Your task to perform on an android device: Open Google Chrome and click the shortcut for Amazon.com Image 0: 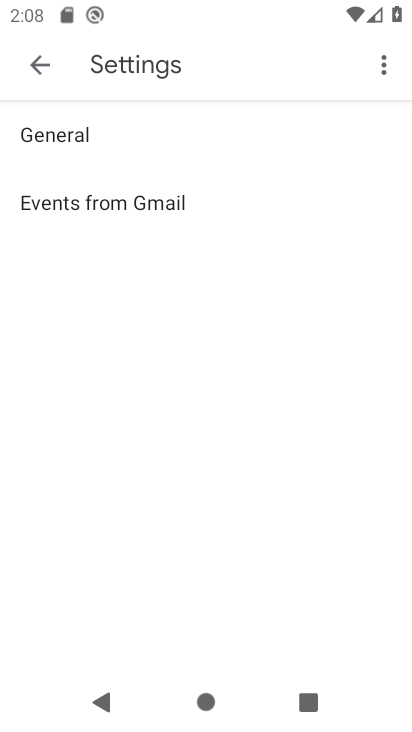
Step 0: press home button
Your task to perform on an android device: Open Google Chrome and click the shortcut for Amazon.com Image 1: 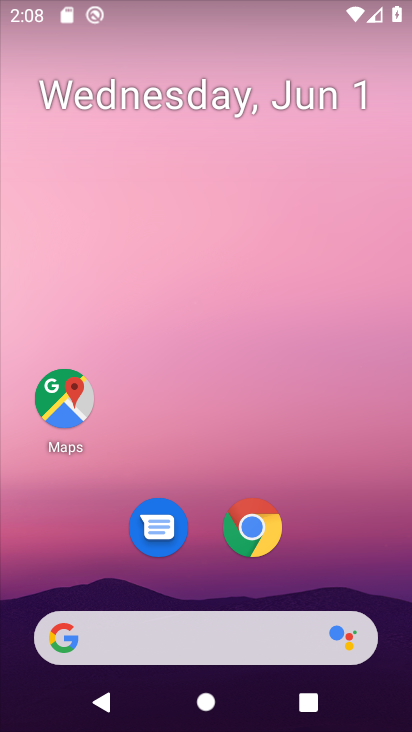
Step 1: click (246, 533)
Your task to perform on an android device: Open Google Chrome and click the shortcut for Amazon.com Image 2: 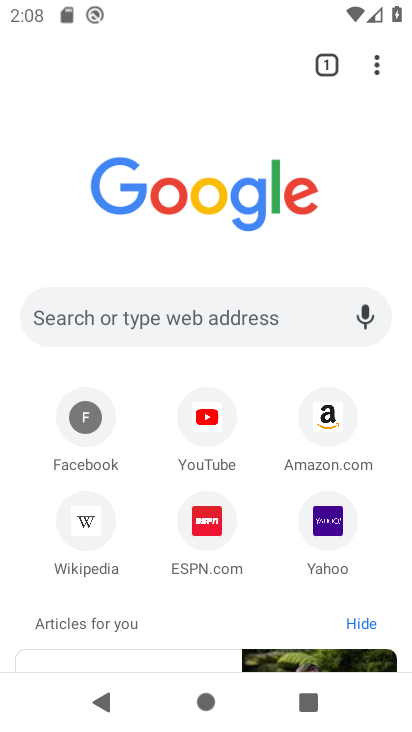
Step 2: click (316, 445)
Your task to perform on an android device: Open Google Chrome and click the shortcut for Amazon.com Image 3: 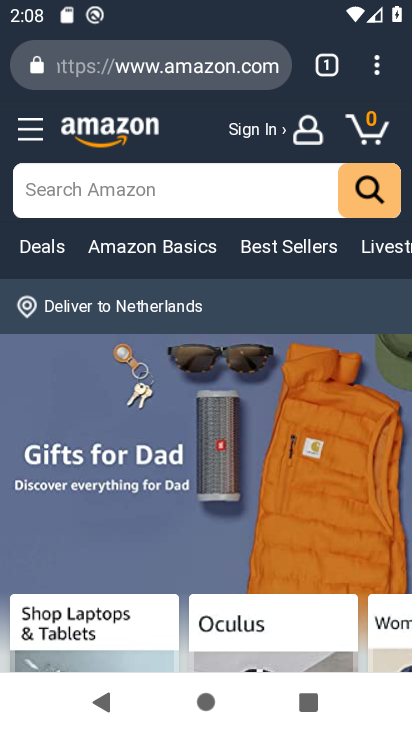
Step 3: task complete